Your task to perform on an android device: Open accessibility settings Image 0: 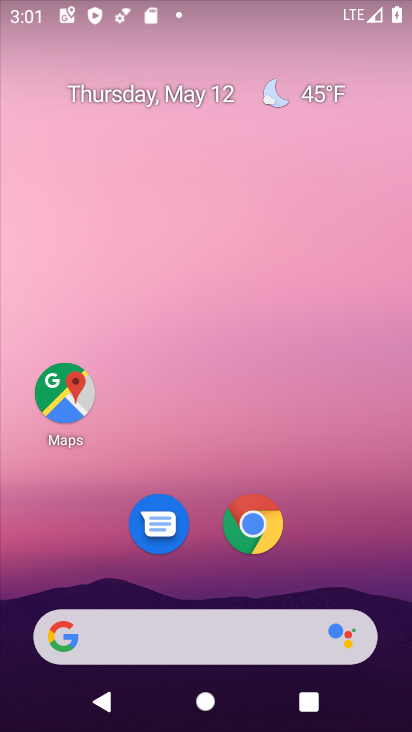
Step 0: drag from (223, 453) to (315, 47)
Your task to perform on an android device: Open accessibility settings Image 1: 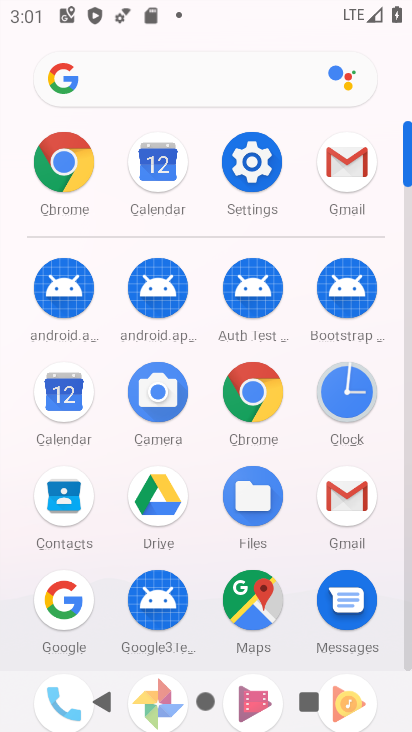
Step 1: click (249, 163)
Your task to perform on an android device: Open accessibility settings Image 2: 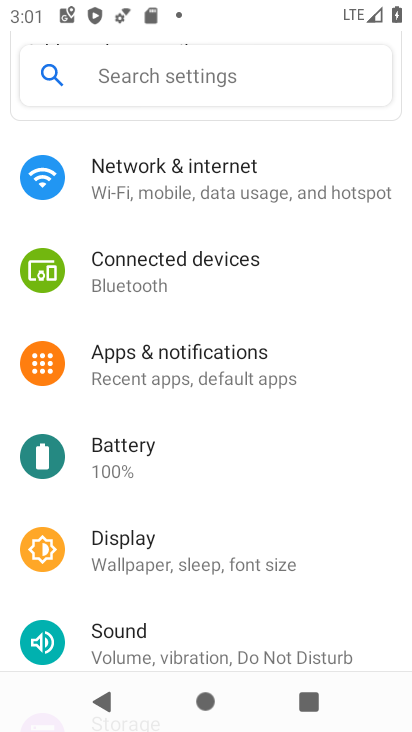
Step 2: drag from (229, 400) to (239, 212)
Your task to perform on an android device: Open accessibility settings Image 3: 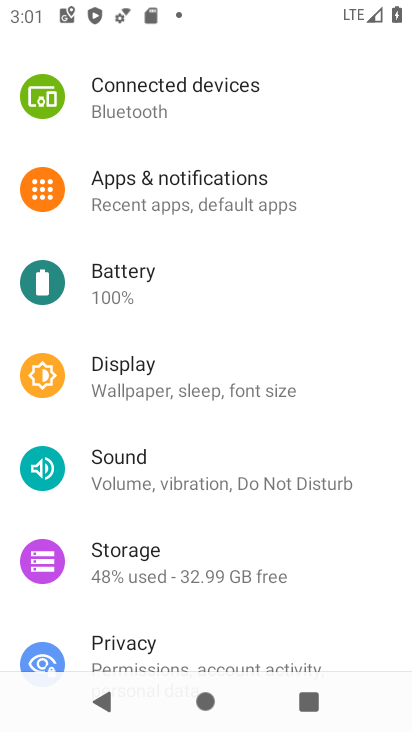
Step 3: drag from (196, 510) to (245, 124)
Your task to perform on an android device: Open accessibility settings Image 4: 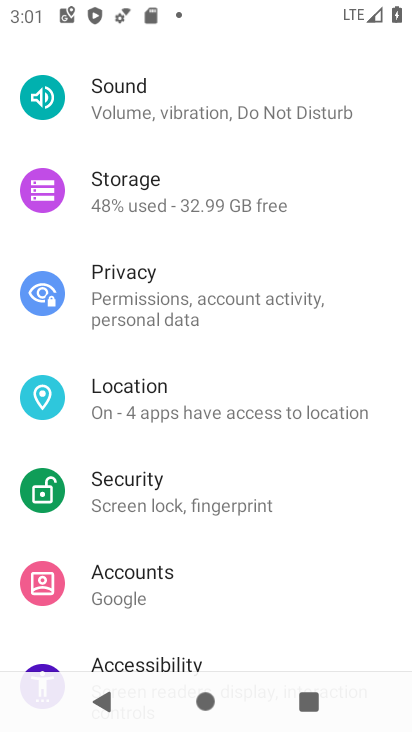
Step 4: drag from (185, 569) to (225, 207)
Your task to perform on an android device: Open accessibility settings Image 5: 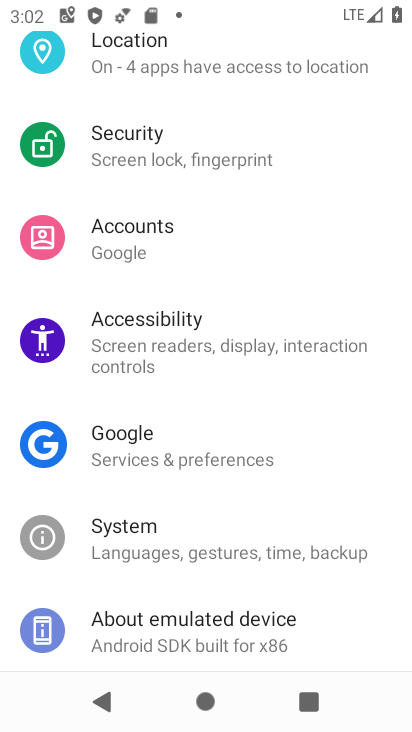
Step 5: click (191, 337)
Your task to perform on an android device: Open accessibility settings Image 6: 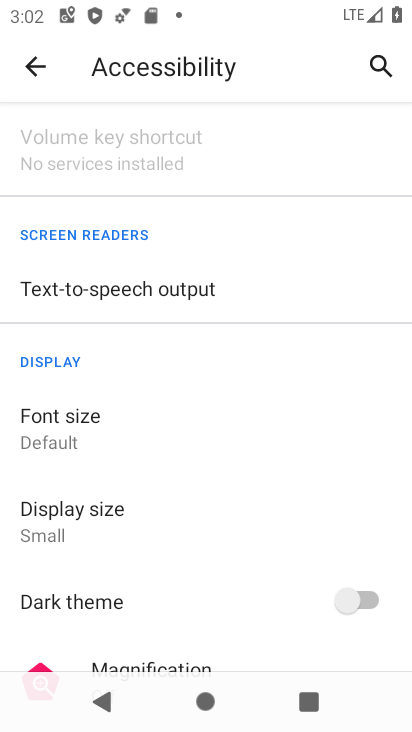
Step 6: task complete